Your task to perform on an android device: Clear the shopping cart on costco.com. Add usb-c to the cart on costco.com Image 0: 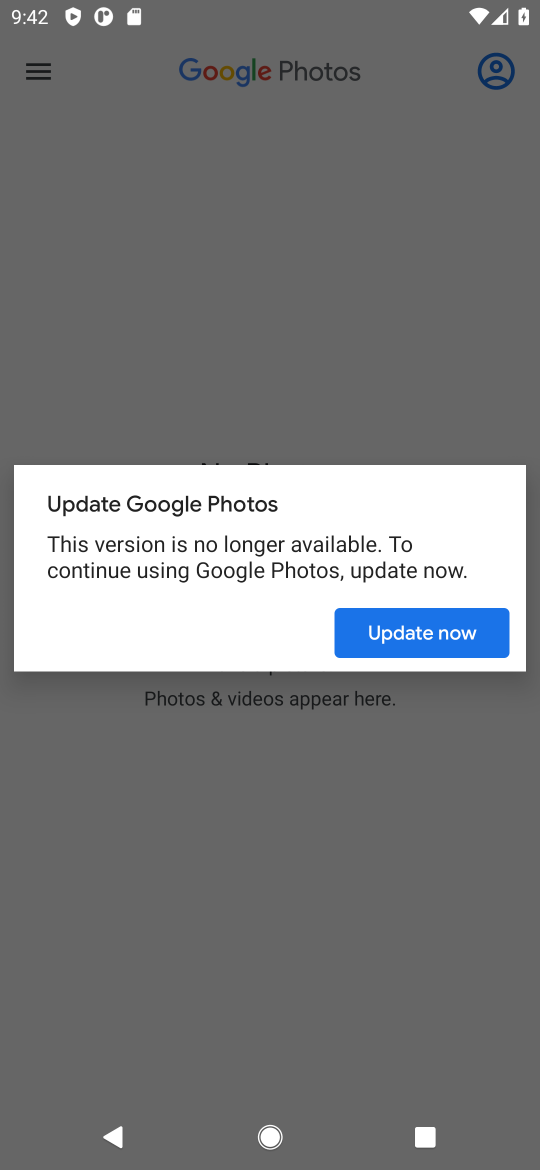
Step 0: press home button
Your task to perform on an android device: Clear the shopping cart on costco.com. Add usb-c to the cart on costco.com Image 1: 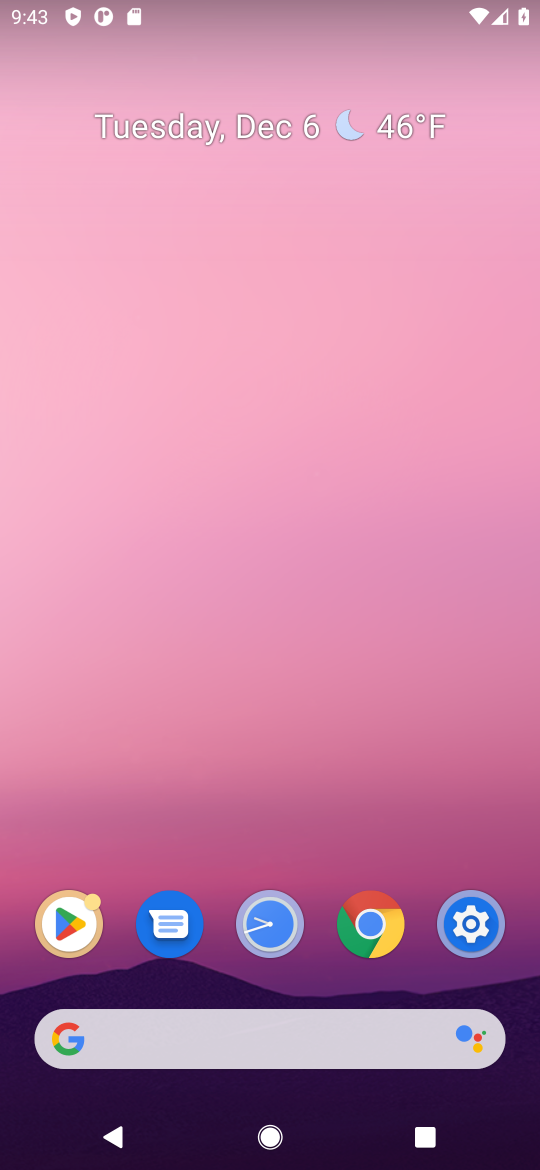
Step 1: click (250, 1044)
Your task to perform on an android device: Clear the shopping cart on costco.com. Add usb-c to the cart on costco.com Image 2: 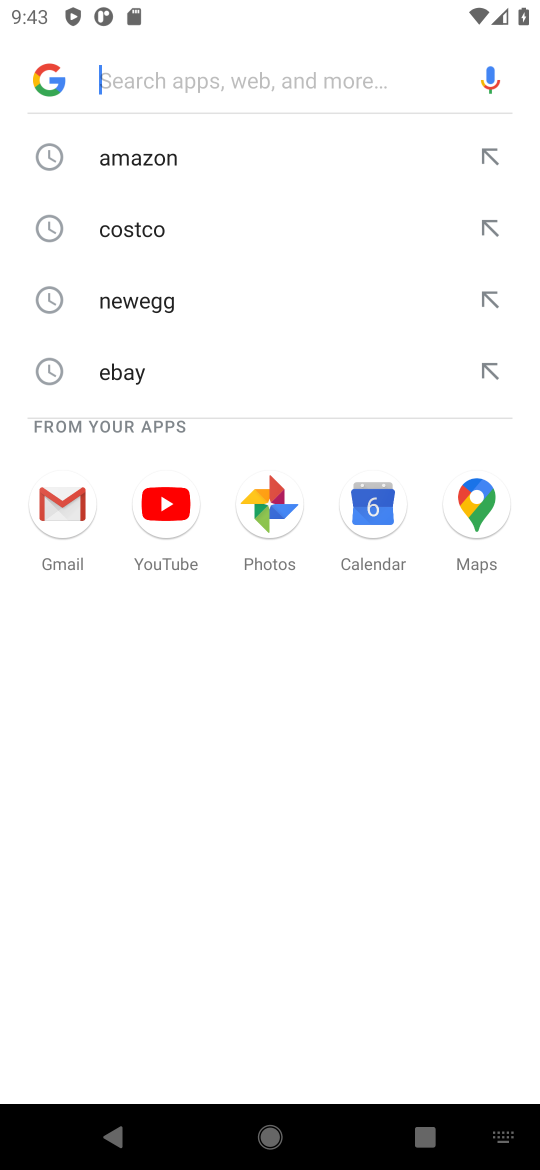
Step 2: type "costco"
Your task to perform on an android device: Clear the shopping cart on costco.com. Add usb-c to the cart on costco.com Image 3: 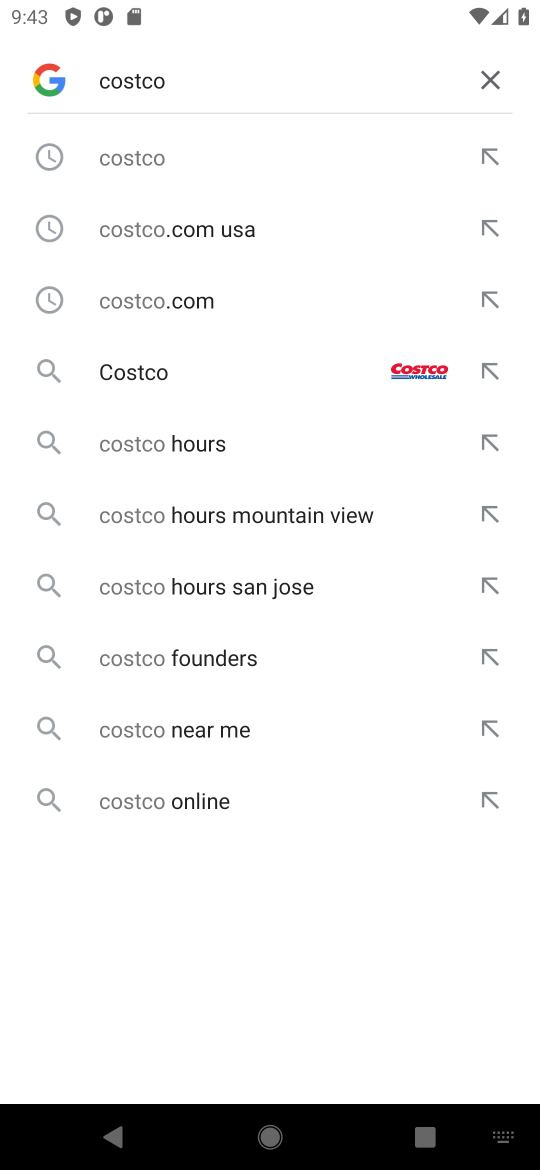
Step 3: click (180, 369)
Your task to perform on an android device: Clear the shopping cart on costco.com. Add usb-c to the cart on costco.com Image 4: 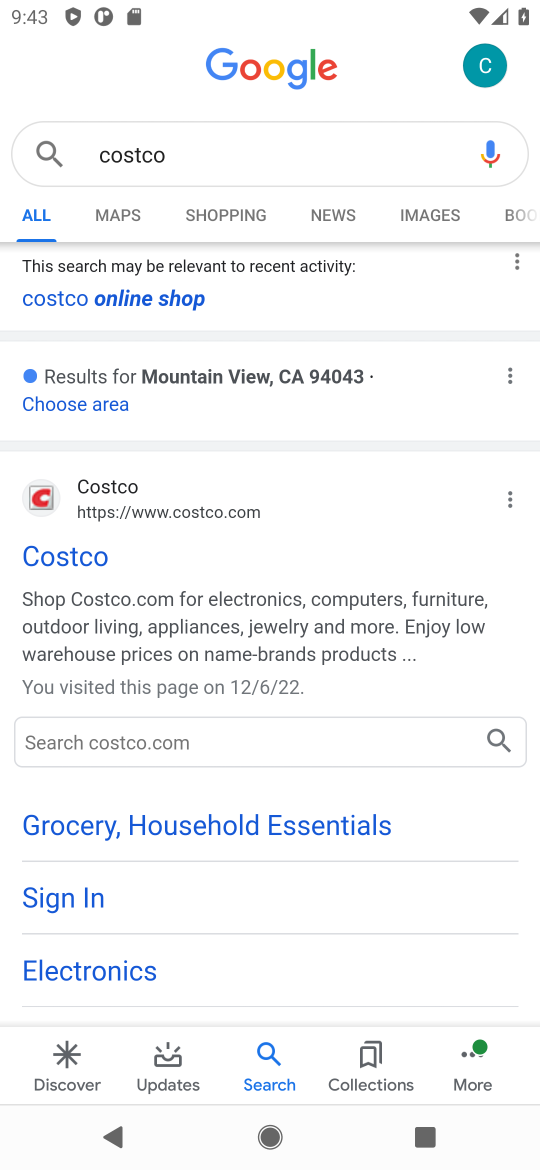
Step 4: click (94, 576)
Your task to perform on an android device: Clear the shopping cart on costco.com. Add usb-c to the cart on costco.com Image 5: 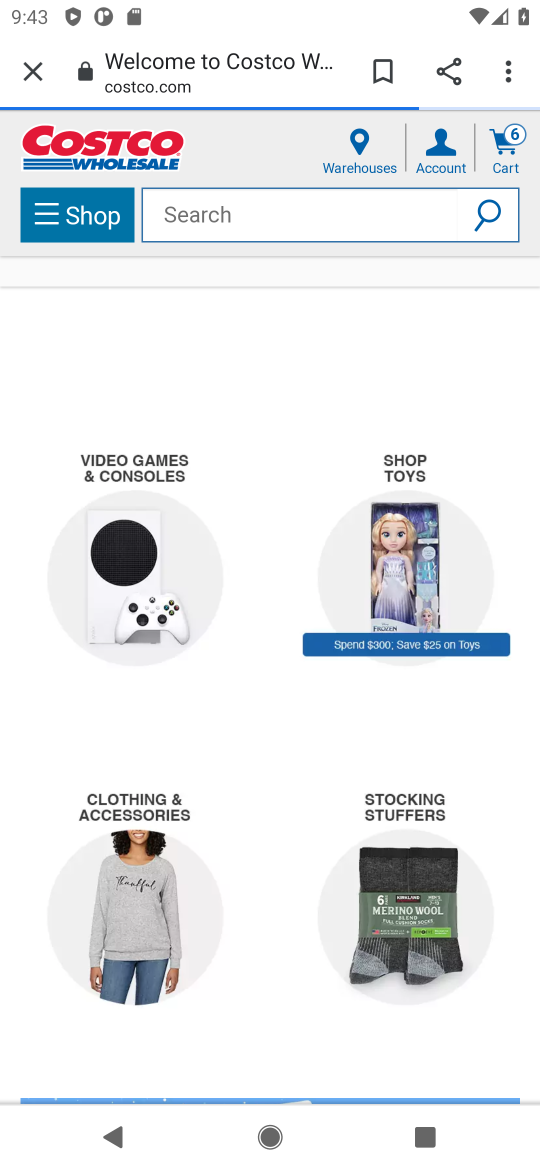
Step 5: click (290, 227)
Your task to perform on an android device: Clear the shopping cart on costco.com. Add usb-c to the cart on costco.com Image 6: 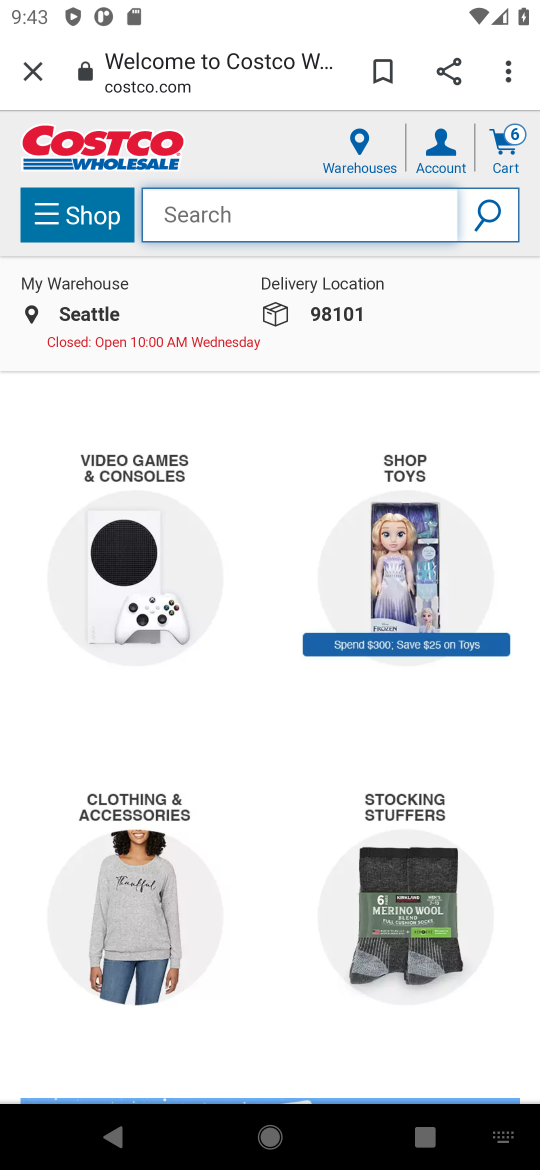
Step 6: type "usb-c "
Your task to perform on an android device: Clear the shopping cart on costco.com. Add usb-c to the cart on costco.com Image 7: 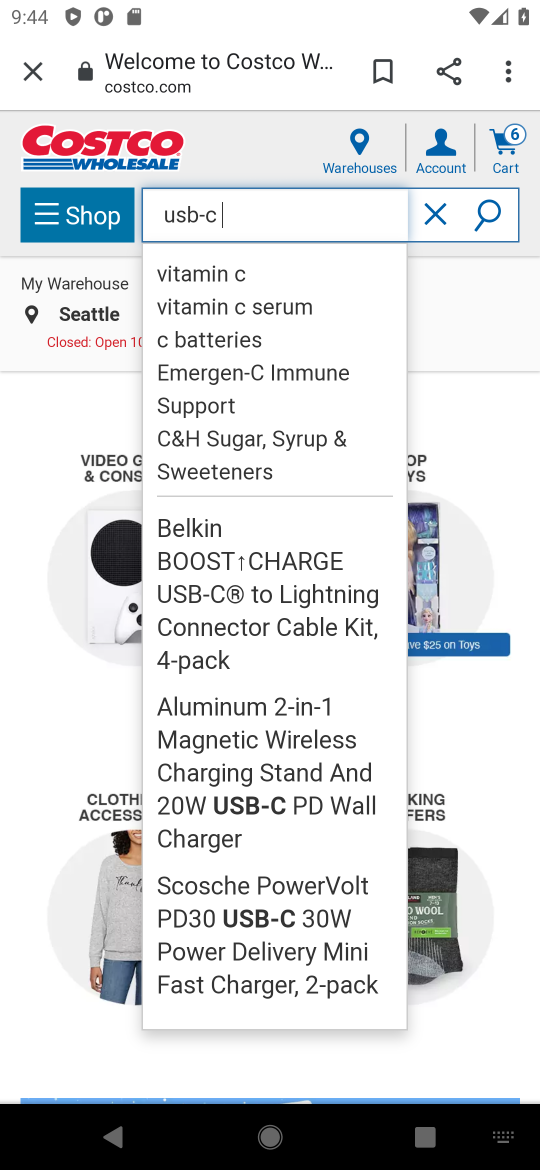
Step 7: click (479, 234)
Your task to perform on an android device: Clear the shopping cart on costco.com. Add usb-c to the cart on costco.com Image 8: 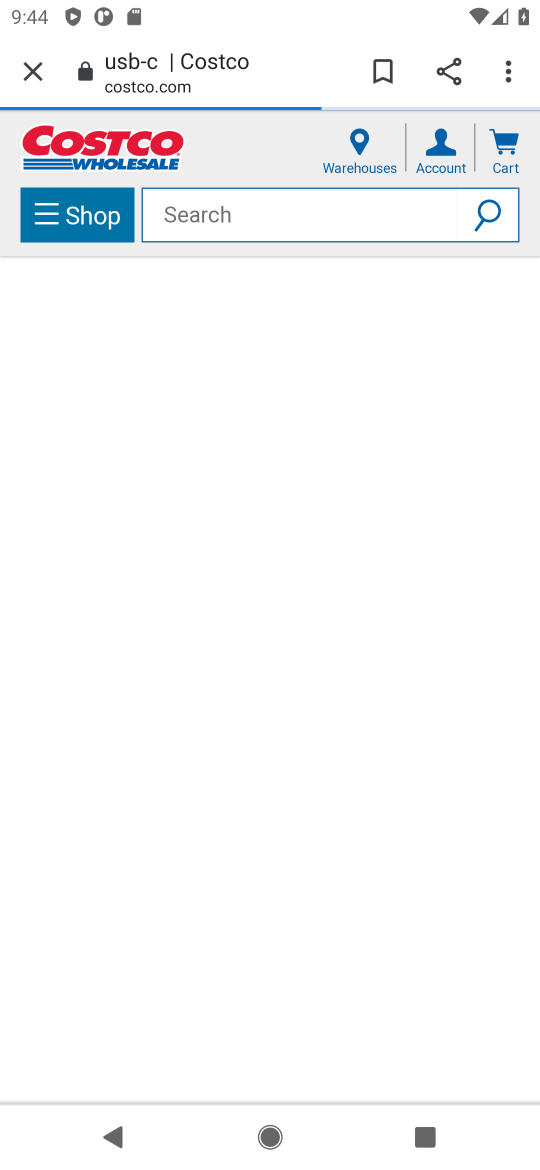
Step 8: task complete